Your task to perform on an android device: add a label to a message in the gmail app Image 0: 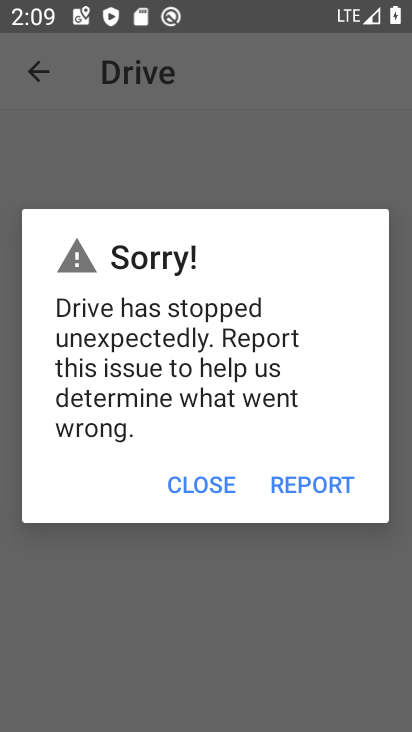
Step 0: press home button
Your task to perform on an android device: add a label to a message in the gmail app Image 1: 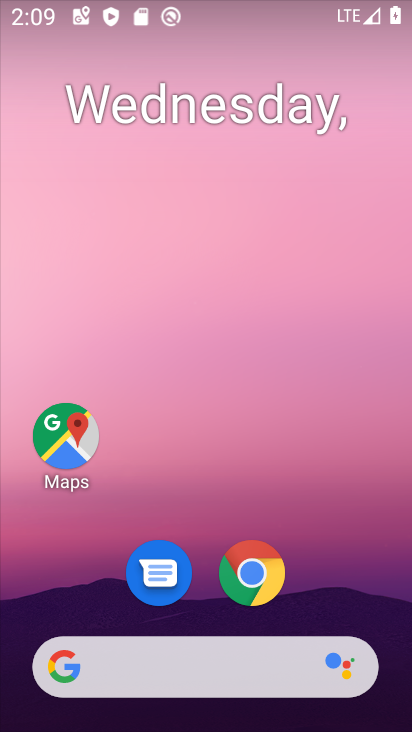
Step 1: drag from (209, 593) to (181, 161)
Your task to perform on an android device: add a label to a message in the gmail app Image 2: 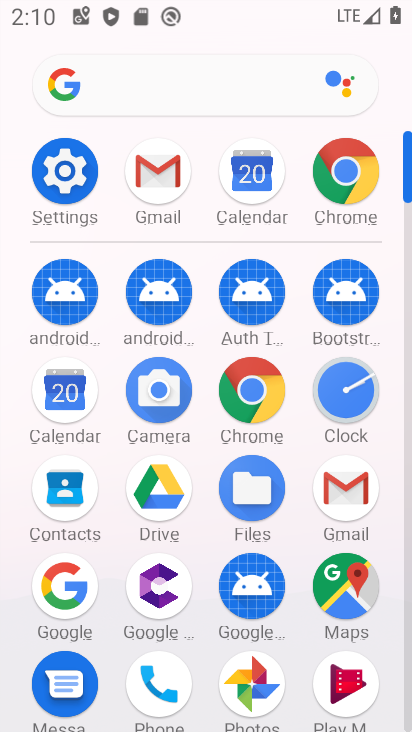
Step 2: click (338, 490)
Your task to perform on an android device: add a label to a message in the gmail app Image 3: 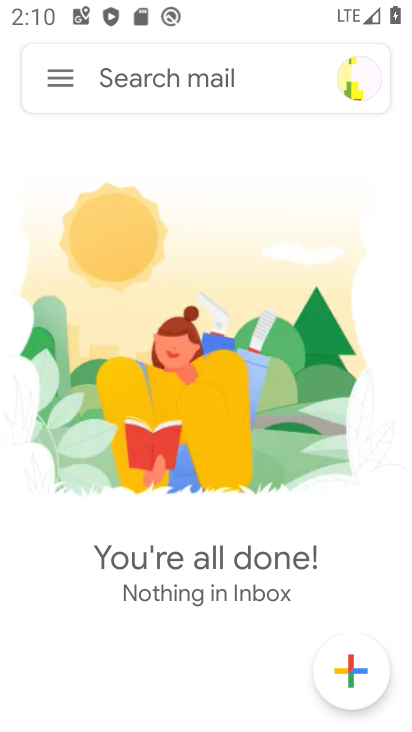
Step 3: task complete